Your task to perform on an android device: turn on the 24-hour format for clock Image 0: 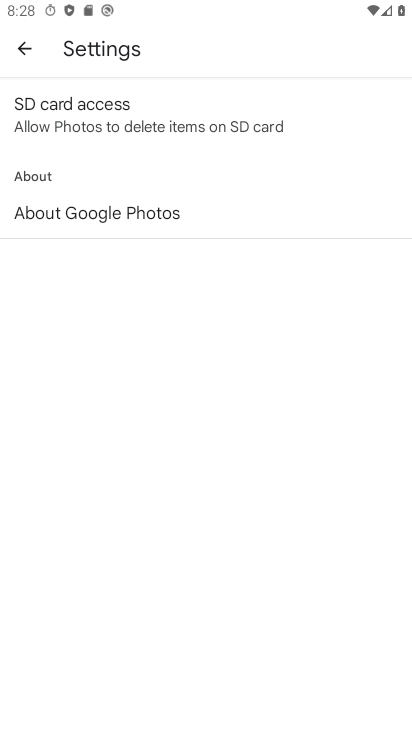
Step 0: press home button
Your task to perform on an android device: turn on the 24-hour format for clock Image 1: 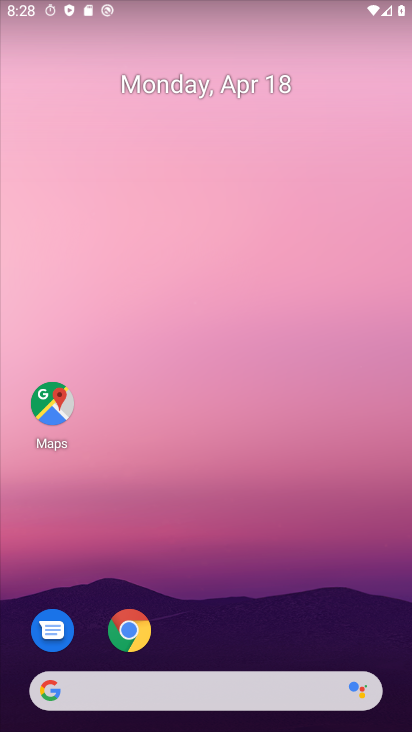
Step 1: drag from (228, 637) to (316, 124)
Your task to perform on an android device: turn on the 24-hour format for clock Image 2: 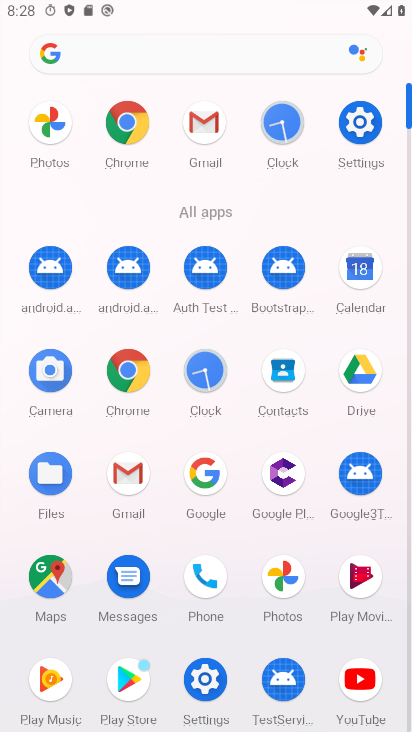
Step 2: click (368, 118)
Your task to perform on an android device: turn on the 24-hour format for clock Image 3: 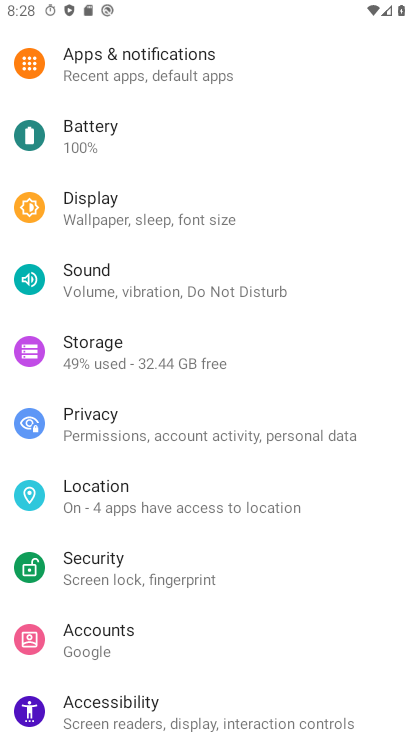
Step 3: drag from (186, 664) to (299, 124)
Your task to perform on an android device: turn on the 24-hour format for clock Image 4: 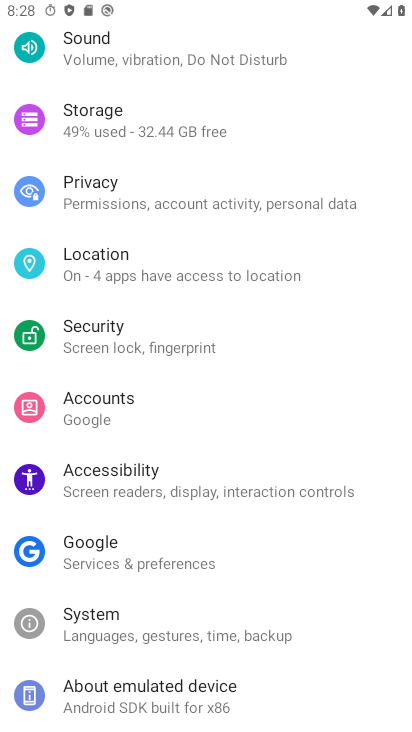
Step 4: click (165, 630)
Your task to perform on an android device: turn on the 24-hour format for clock Image 5: 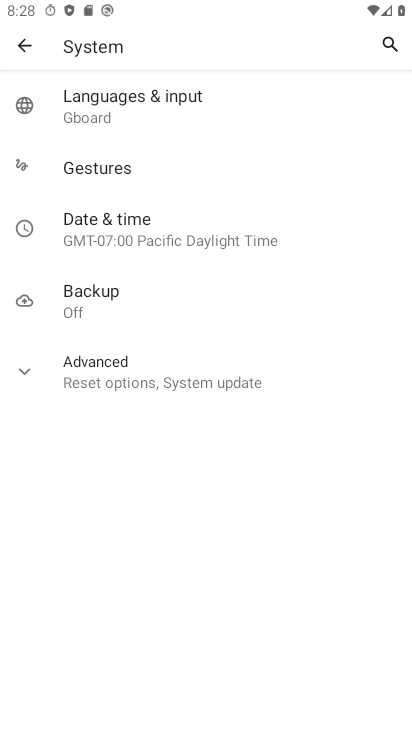
Step 5: click (124, 227)
Your task to perform on an android device: turn on the 24-hour format for clock Image 6: 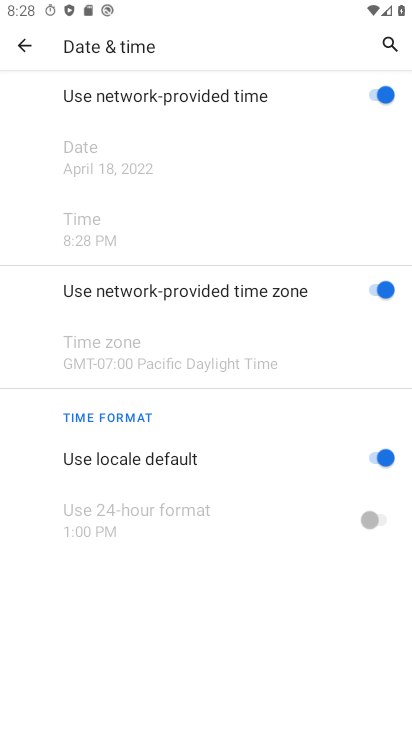
Step 6: click (375, 449)
Your task to perform on an android device: turn on the 24-hour format for clock Image 7: 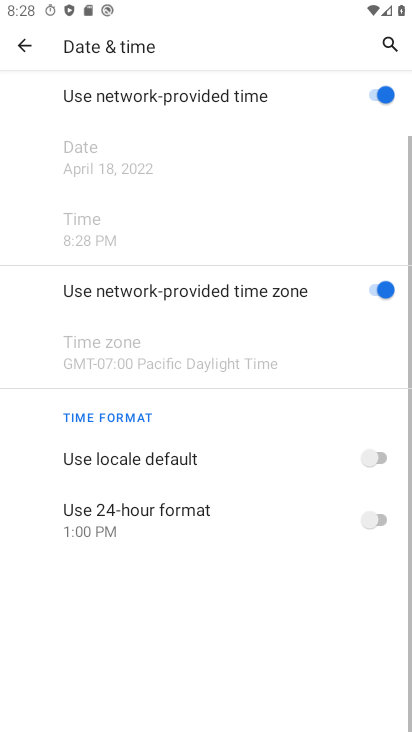
Step 7: click (391, 519)
Your task to perform on an android device: turn on the 24-hour format for clock Image 8: 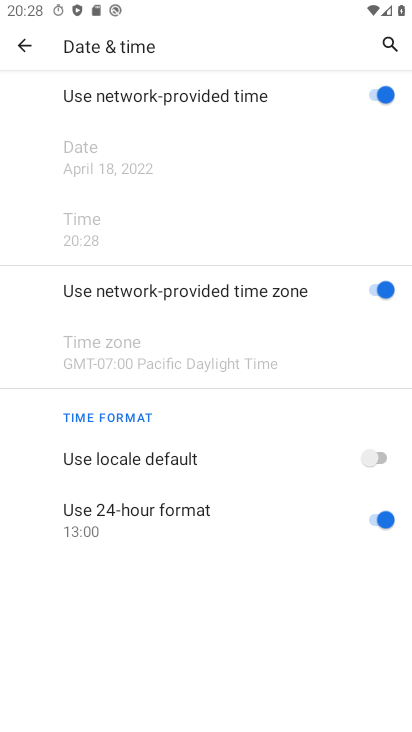
Step 8: task complete